Your task to perform on an android device: Go to settings Image 0: 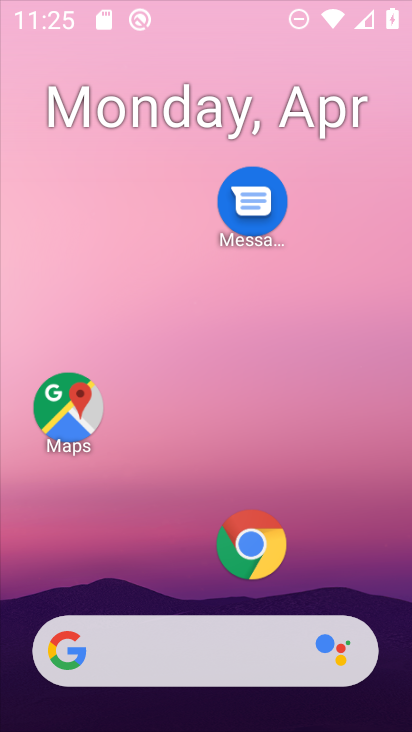
Step 0: click (248, 538)
Your task to perform on an android device: Go to settings Image 1: 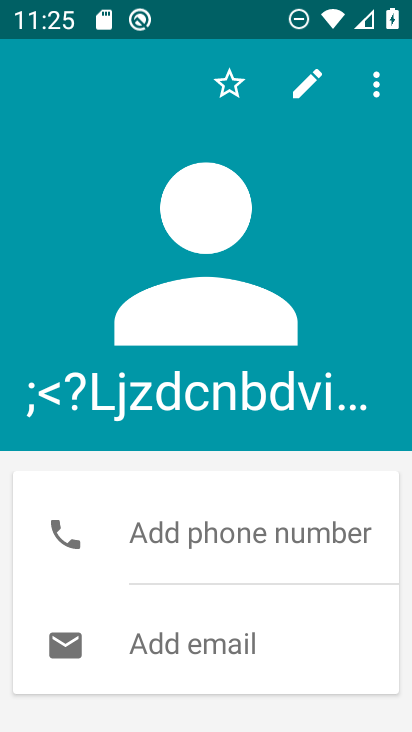
Step 1: press home button
Your task to perform on an android device: Go to settings Image 2: 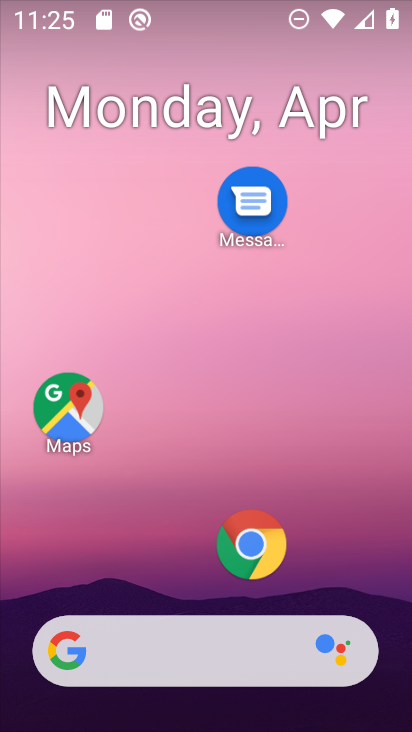
Step 2: drag from (202, 588) to (250, 62)
Your task to perform on an android device: Go to settings Image 3: 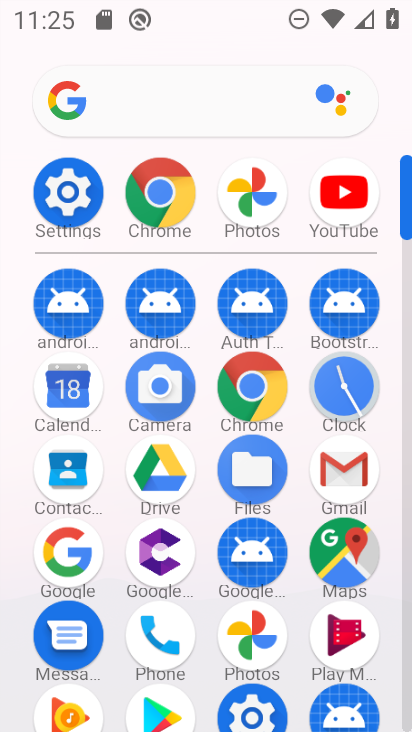
Step 3: click (74, 181)
Your task to perform on an android device: Go to settings Image 4: 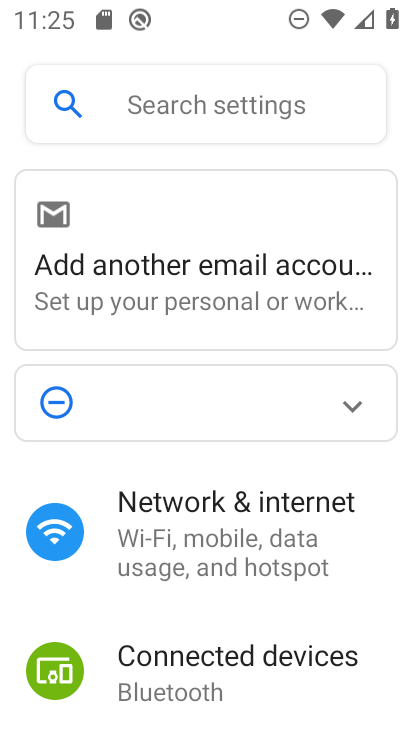
Step 4: task complete